Your task to perform on an android device: open app "Firefox Browser" (install if not already installed), go to login, and select forgot password Image 0: 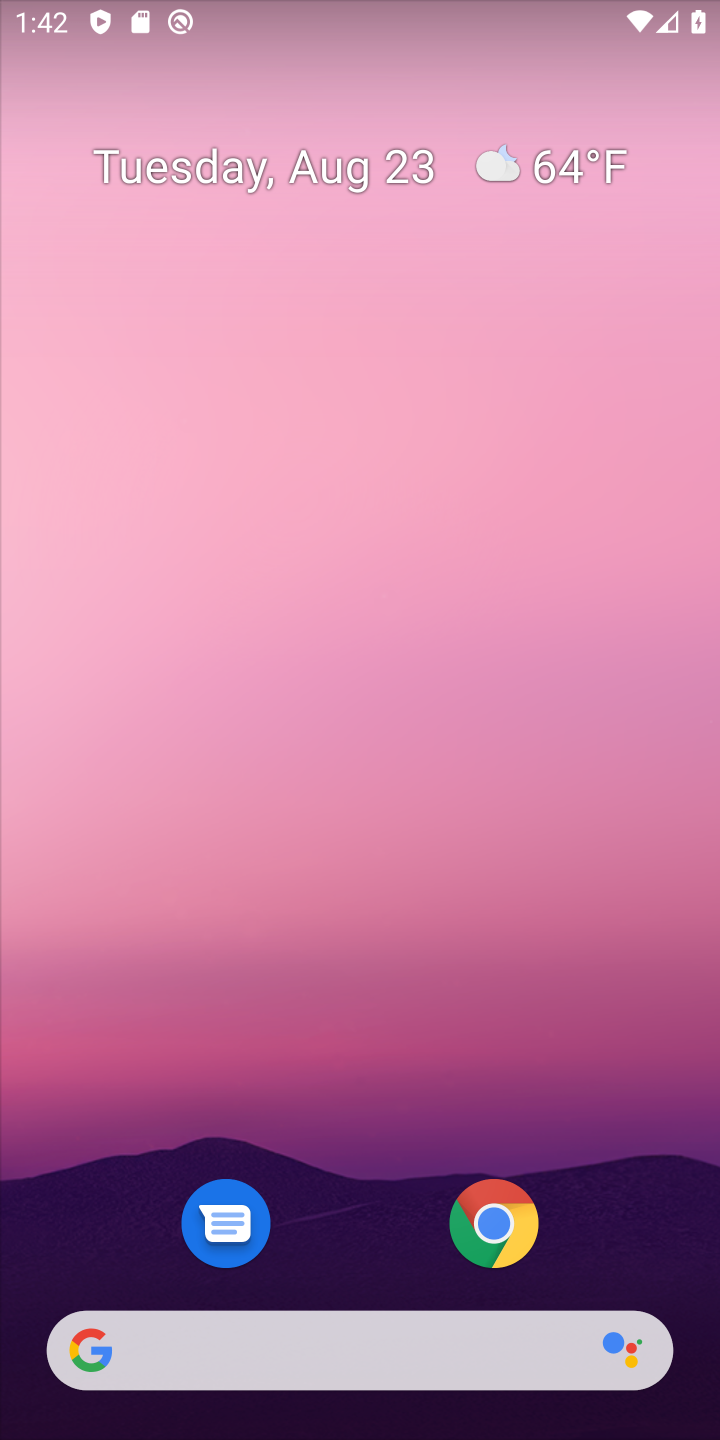
Step 0: drag from (510, 523) to (563, 149)
Your task to perform on an android device: open app "Firefox Browser" (install if not already installed), go to login, and select forgot password Image 1: 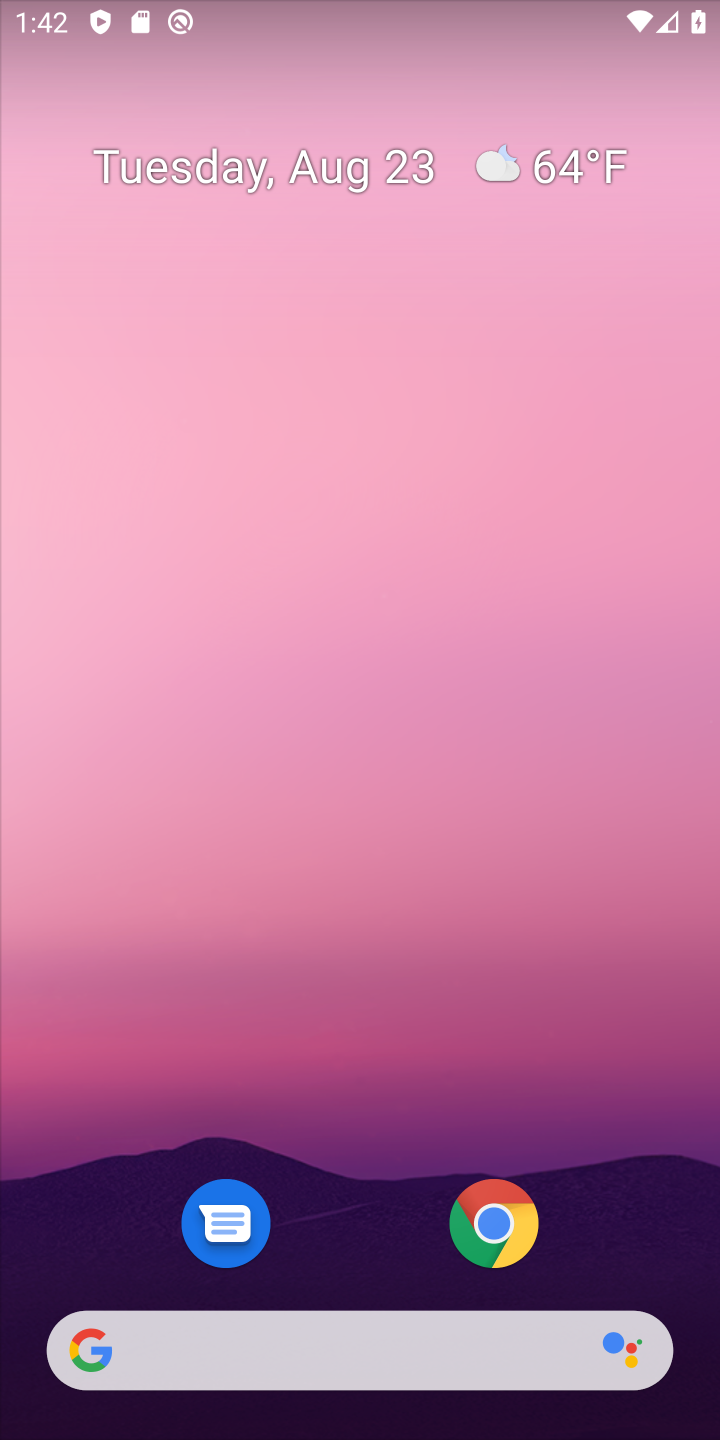
Step 1: drag from (367, 1222) to (520, 45)
Your task to perform on an android device: open app "Firefox Browser" (install if not already installed), go to login, and select forgot password Image 2: 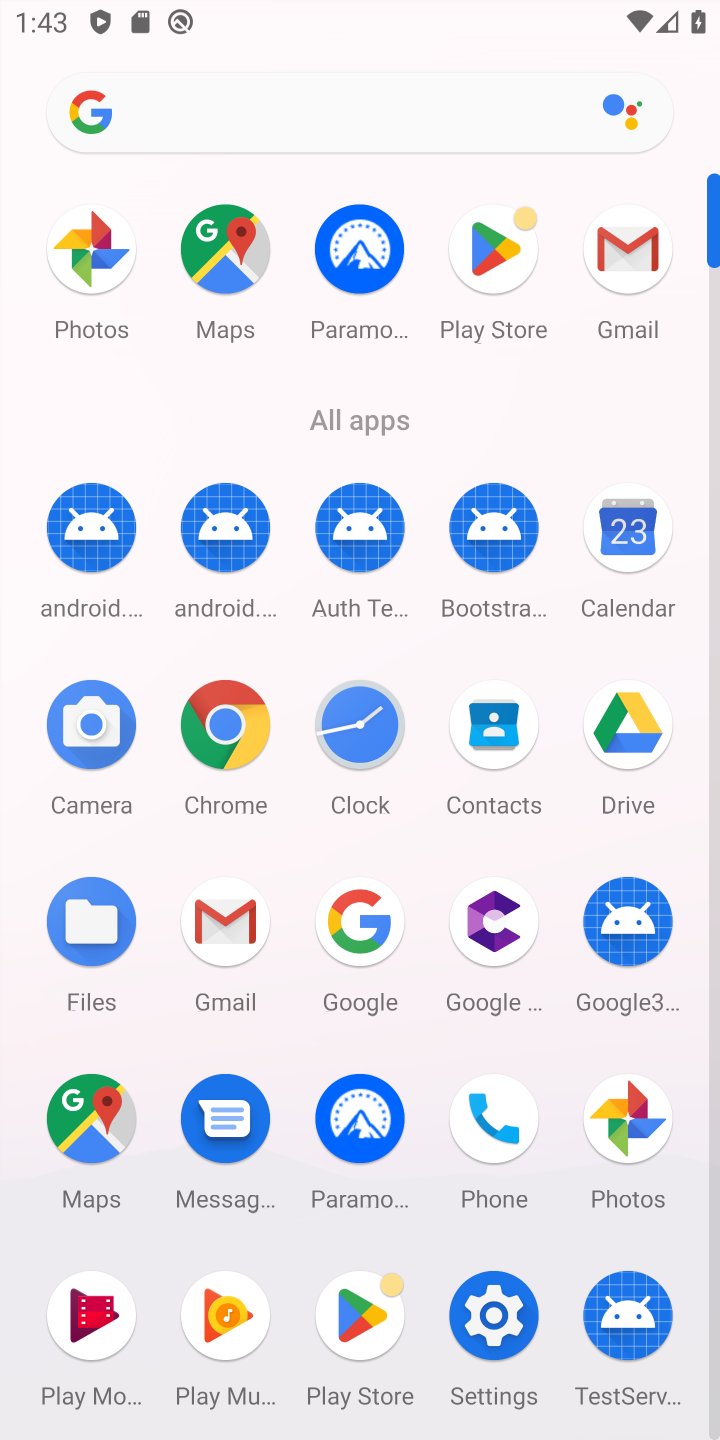
Step 2: click (501, 253)
Your task to perform on an android device: open app "Firefox Browser" (install if not already installed), go to login, and select forgot password Image 3: 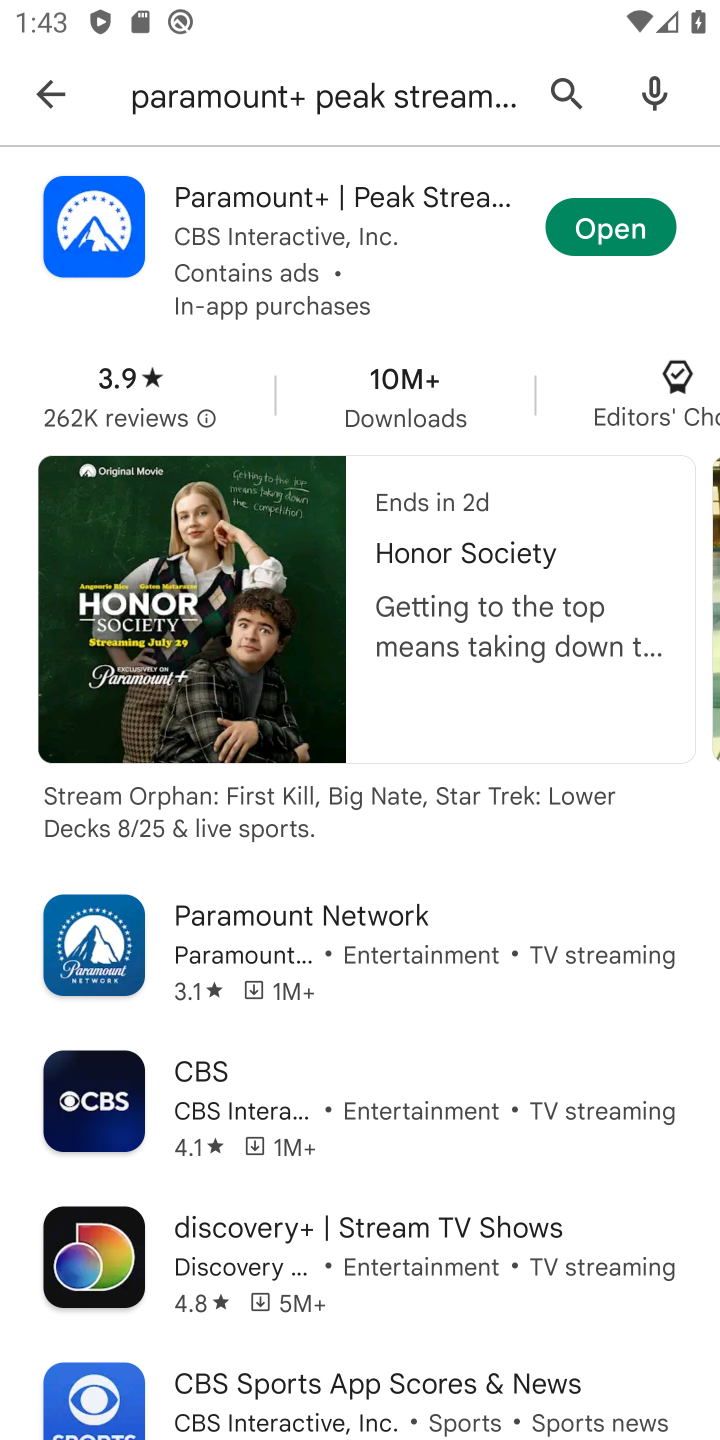
Step 3: click (575, 83)
Your task to perform on an android device: open app "Firefox Browser" (install if not already installed), go to login, and select forgot password Image 4: 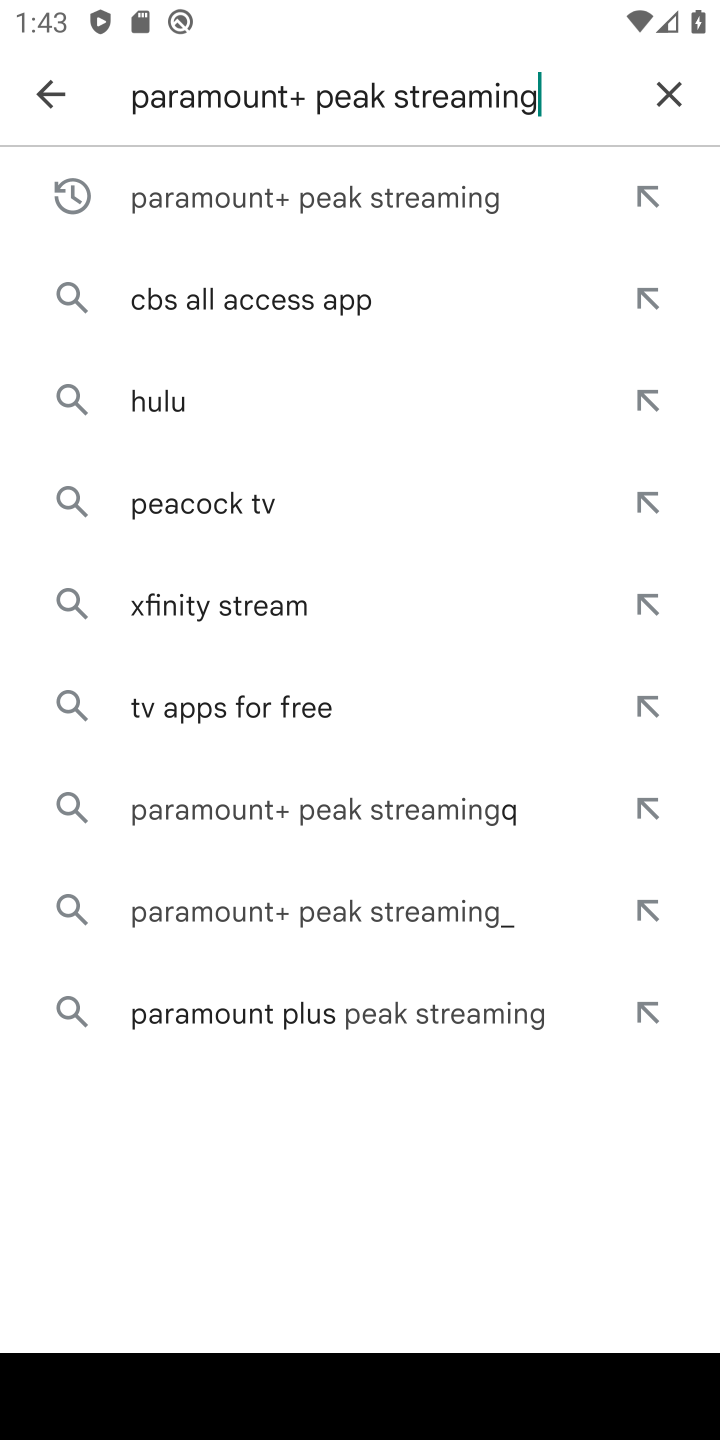
Step 4: click (666, 90)
Your task to perform on an android device: open app "Firefox Browser" (install if not already installed), go to login, and select forgot password Image 5: 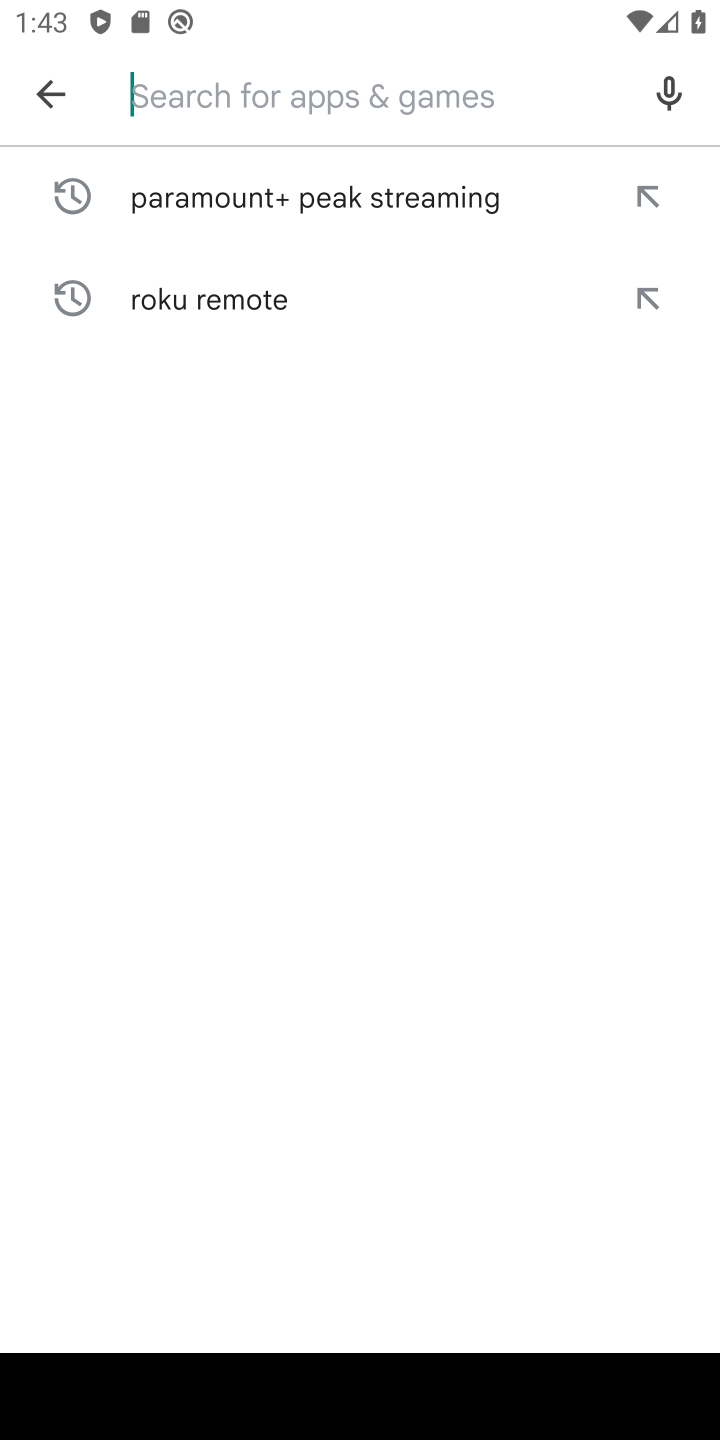
Step 5: click (209, 83)
Your task to perform on an android device: open app "Firefox Browser" (install if not already installed), go to login, and select forgot password Image 6: 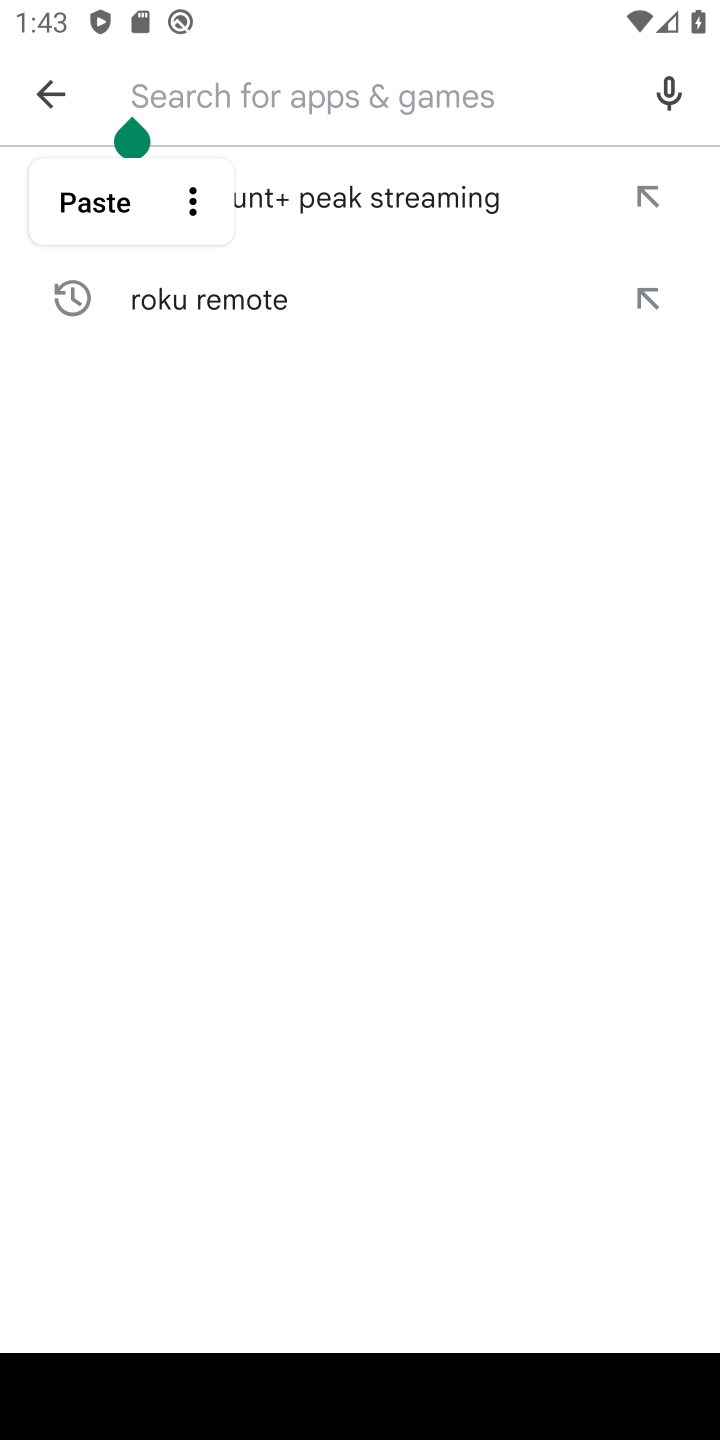
Step 6: type "Firefox Browser"
Your task to perform on an android device: open app "Firefox Browser" (install if not already installed), go to login, and select forgot password Image 7: 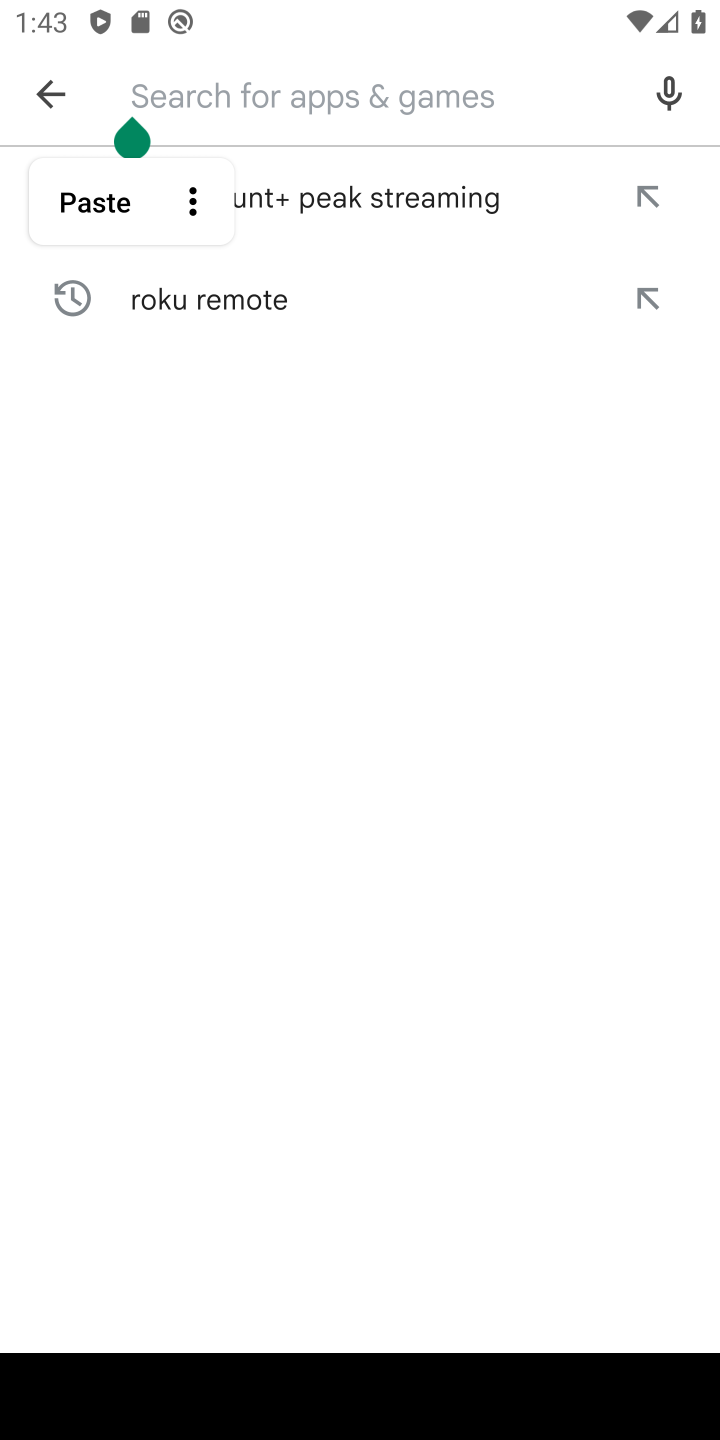
Step 7: click (323, 884)
Your task to perform on an android device: open app "Firefox Browser" (install if not already installed), go to login, and select forgot password Image 8: 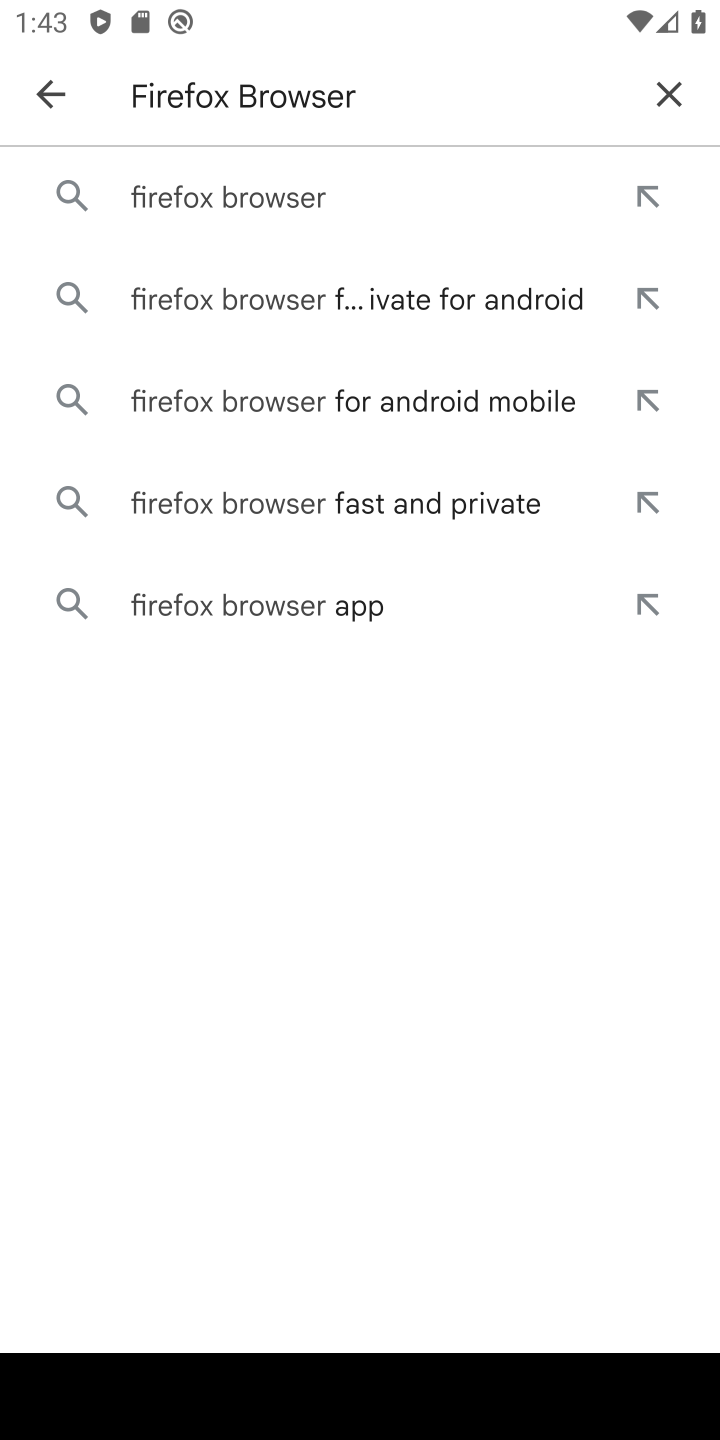
Step 8: click (237, 191)
Your task to perform on an android device: open app "Firefox Browser" (install if not already installed), go to login, and select forgot password Image 9: 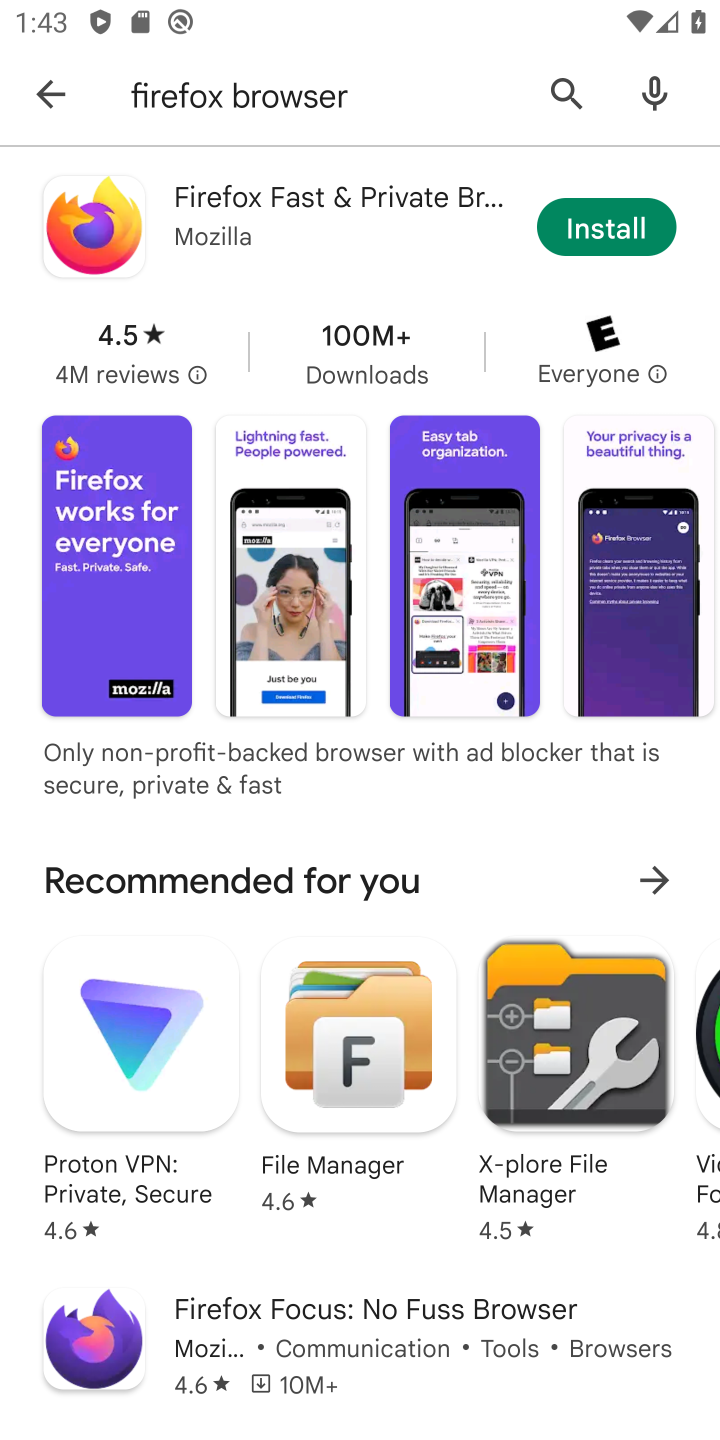
Step 9: click (615, 226)
Your task to perform on an android device: open app "Firefox Browser" (install if not already installed), go to login, and select forgot password Image 10: 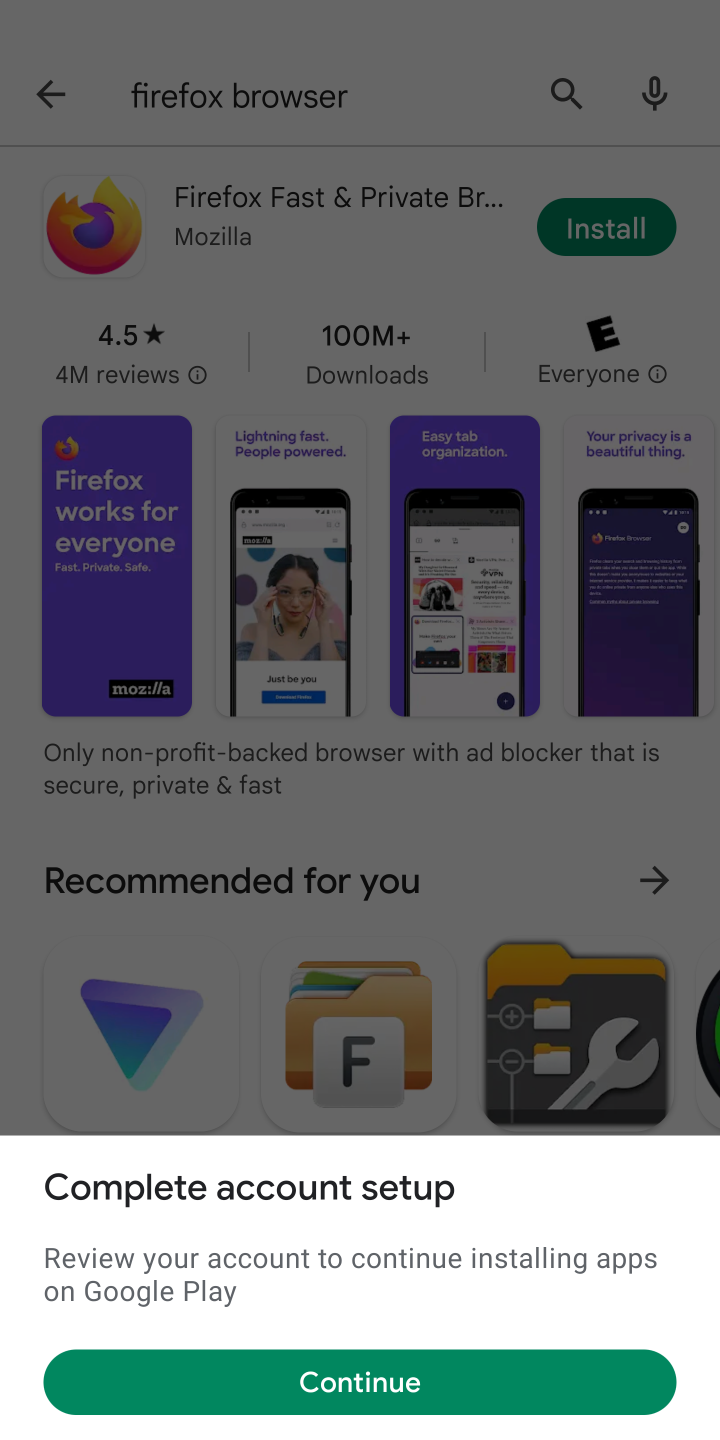
Step 10: click (464, 1382)
Your task to perform on an android device: open app "Firefox Browser" (install if not already installed), go to login, and select forgot password Image 11: 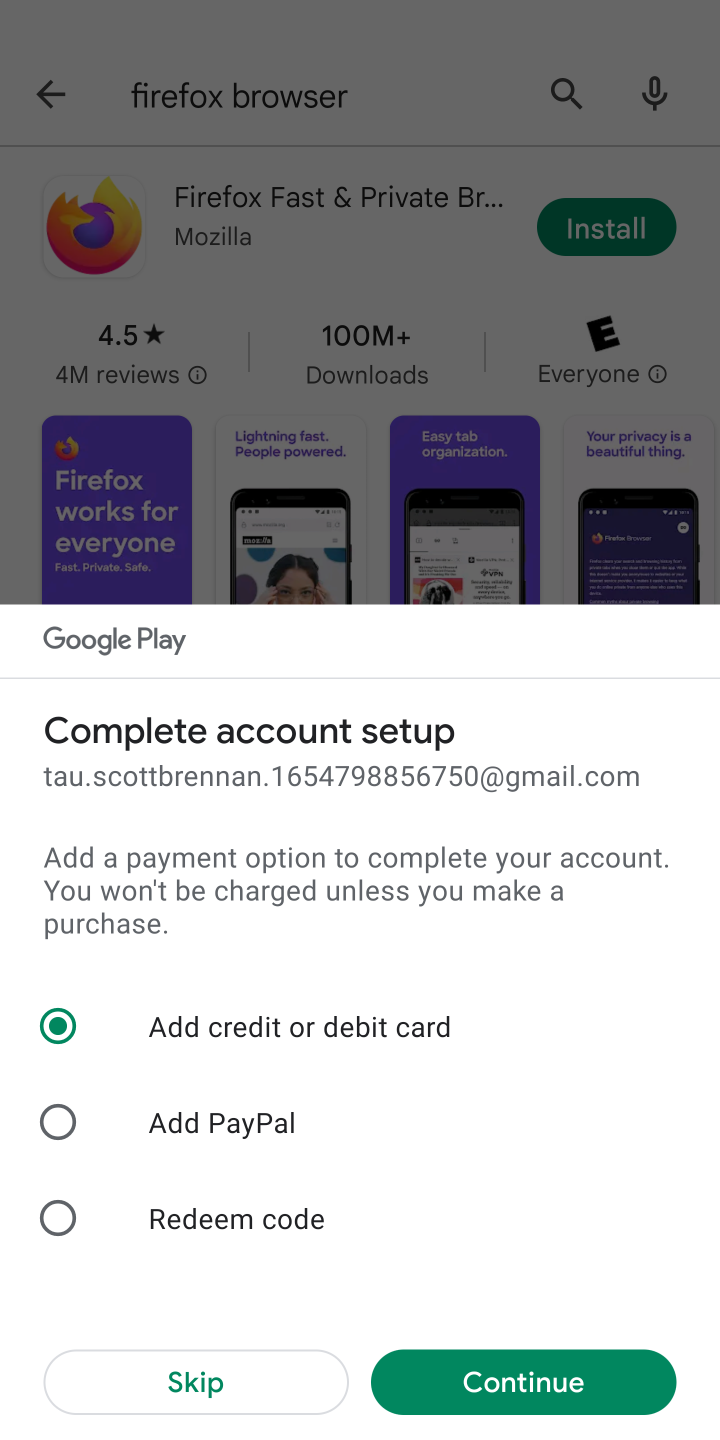
Step 11: click (147, 1387)
Your task to perform on an android device: open app "Firefox Browser" (install if not already installed), go to login, and select forgot password Image 12: 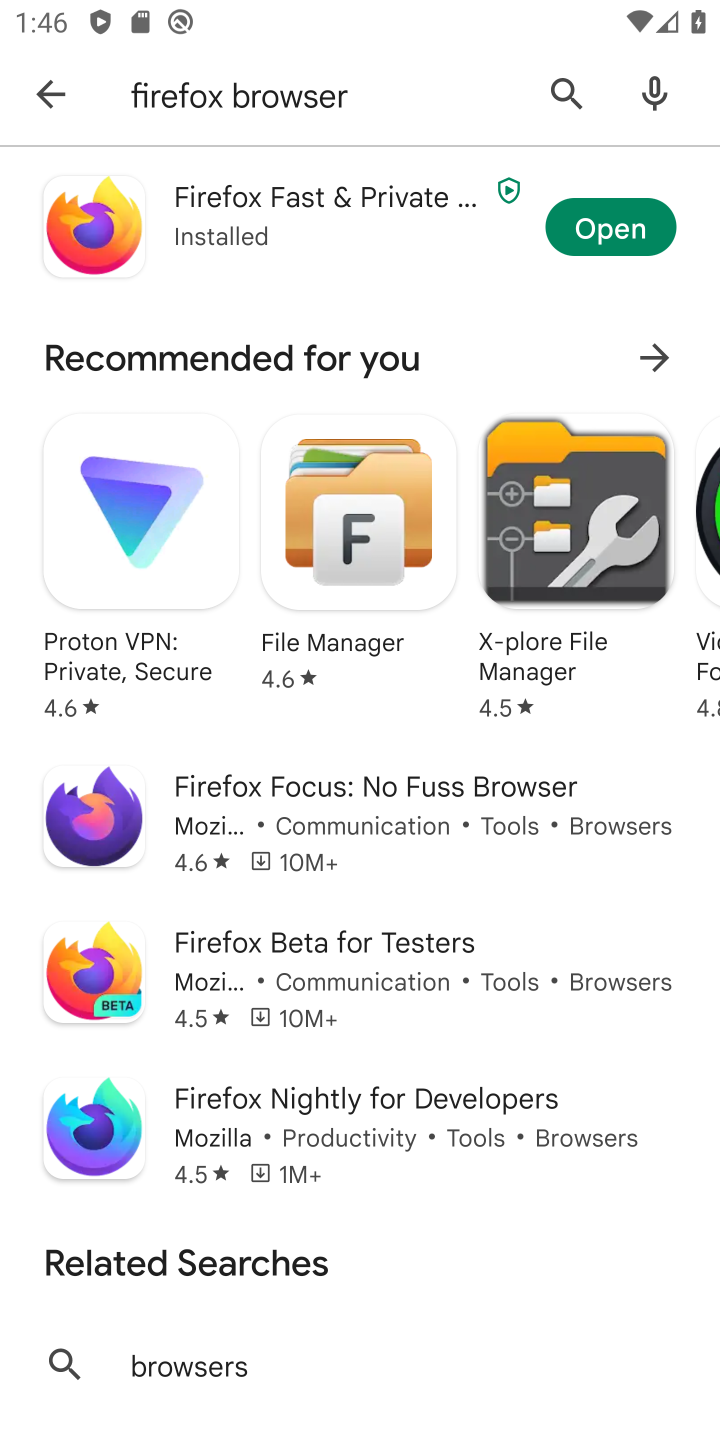
Step 12: click (605, 230)
Your task to perform on an android device: open app "Firefox Browser" (install if not already installed), go to login, and select forgot password Image 13: 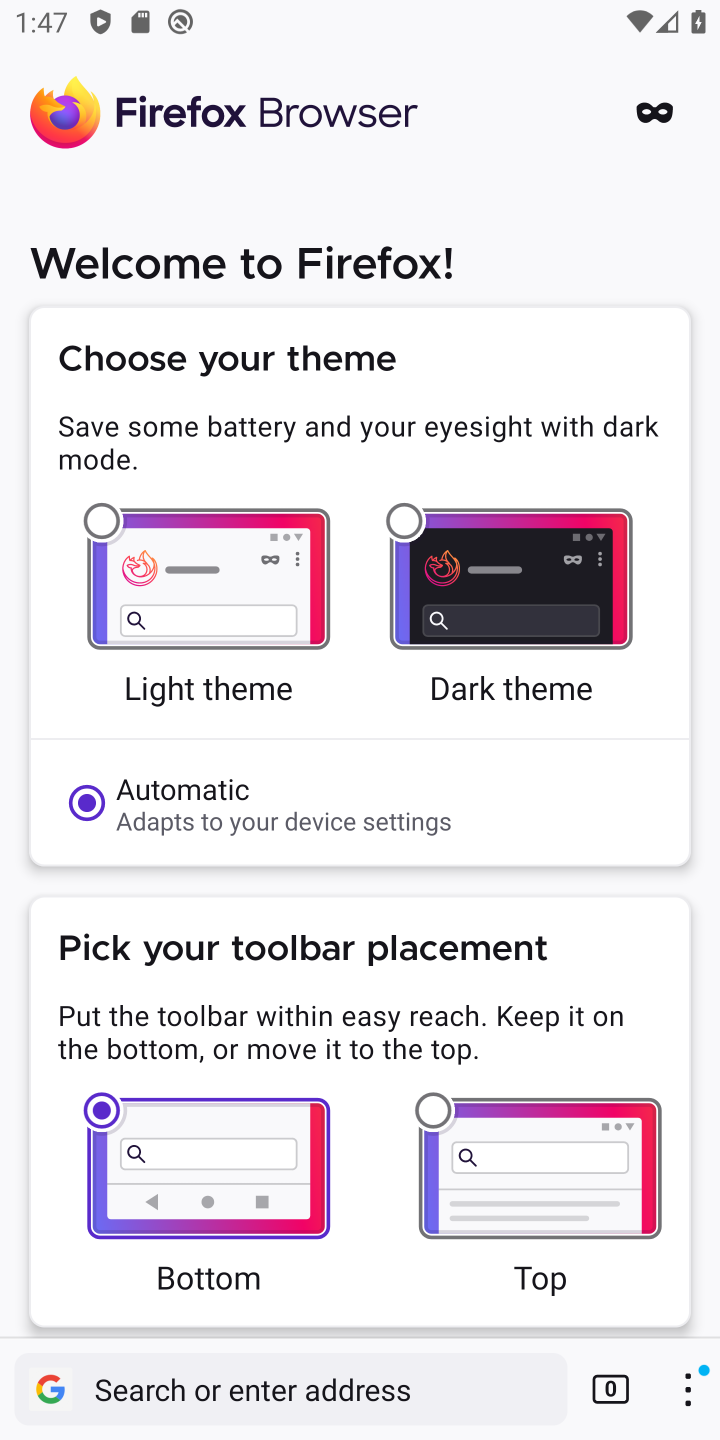
Step 13: task complete